Your task to perform on an android device: set an alarm Image 0: 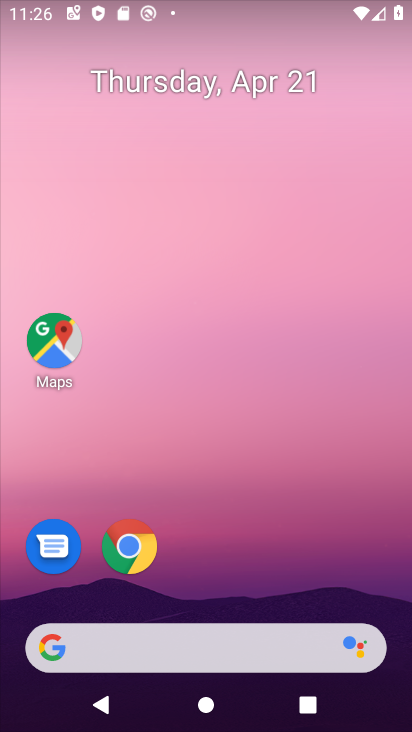
Step 0: drag from (224, 509) to (200, 46)
Your task to perform on an android device: set an alarm Image 1: 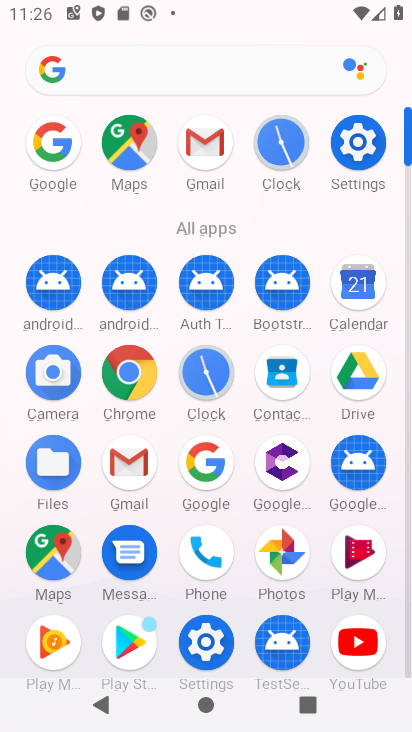
Step 1: click (205, 381)
Your task to perform on an android device: set an alarm Image 2: 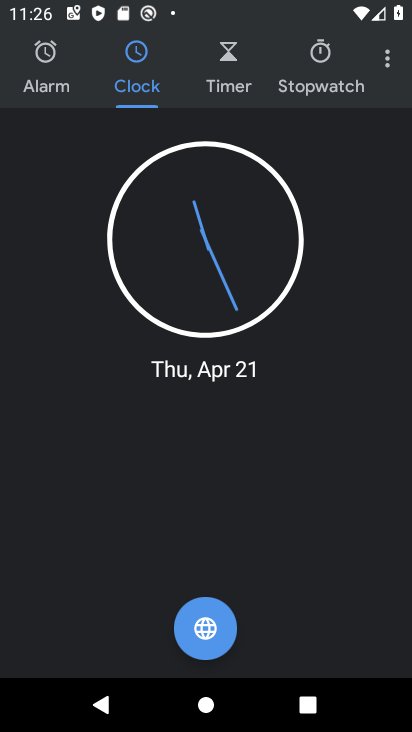
Step 2: click (52, 73)
Your task to perform on an android device: set an alarm Image 3: 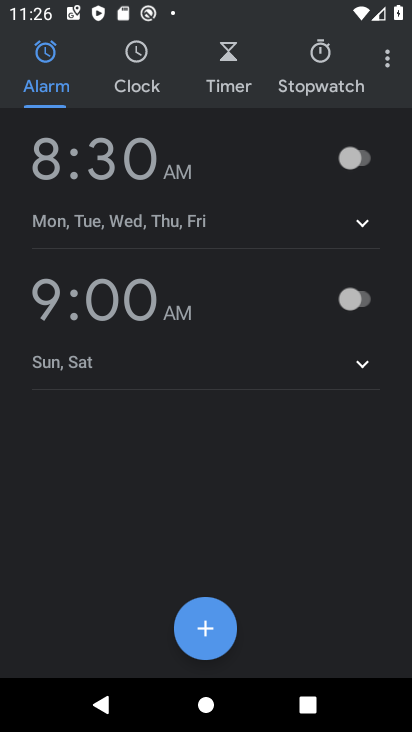
Step 3: click (358, 162)
Your task to perform on an android device: set an alarm Image 4: 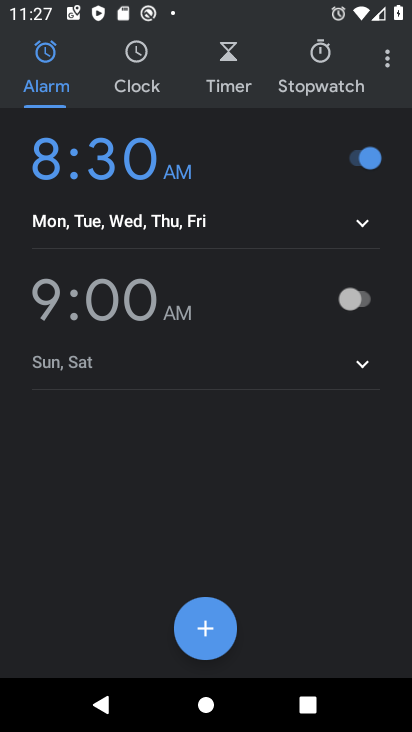
Step 4: task complete